Your task to perform on an android device: turn off notifications in google photos Image 0: 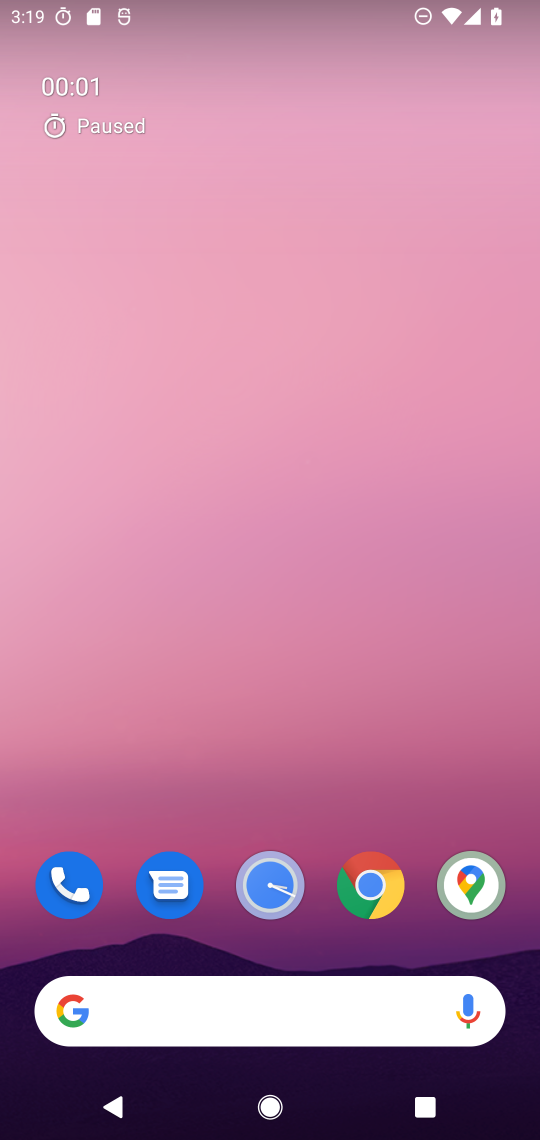
Step 0: drag from (171, 944) to (281, 359)
Your task to perform on an android device: turn off notifications in google photos Image 1: 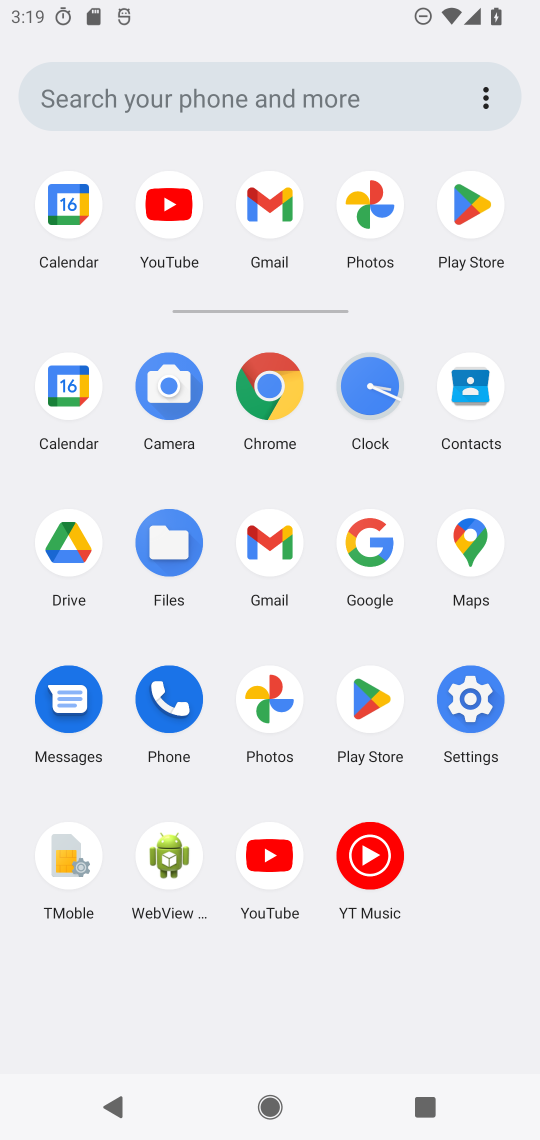
Step 1: click (273, 685)
Your task to perform on an android device: turn off notifications in google photos Image 2: 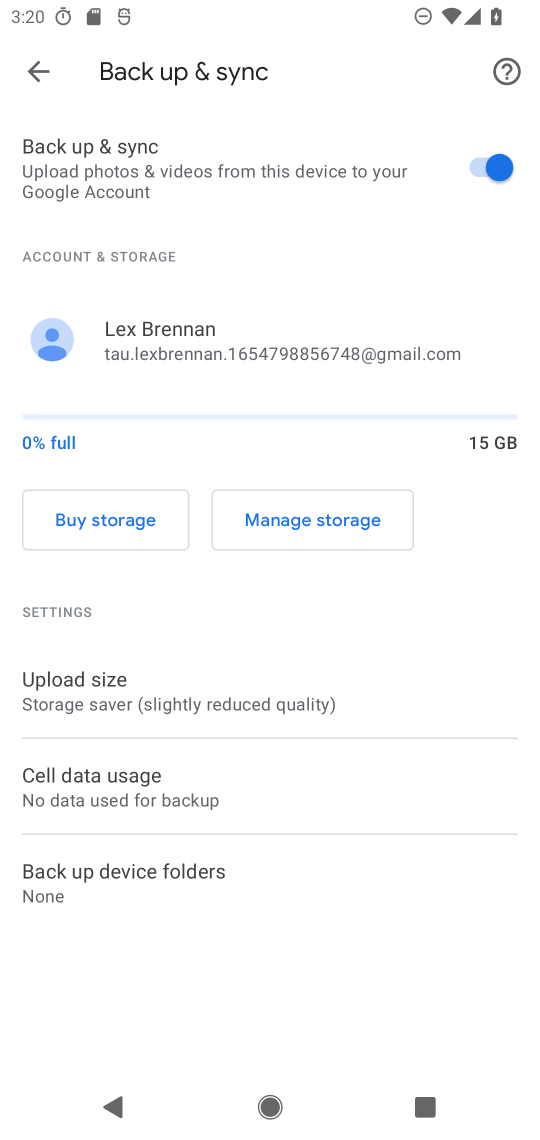
Step 2: click (36, 82)
Your task to perform on an android device: turn off notifications in google photos Image 3: 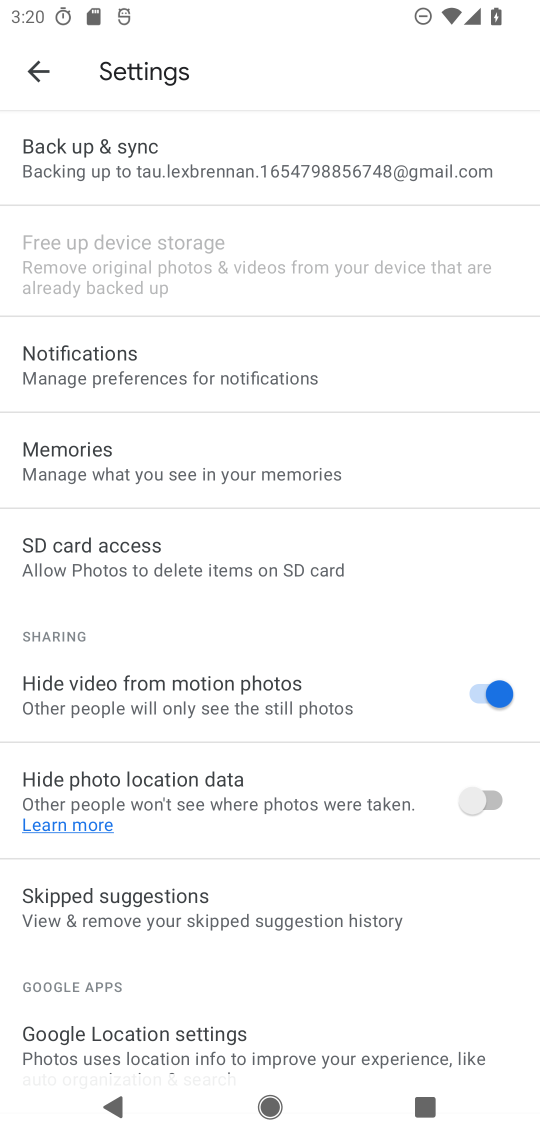
Step 3: click (139, 360)
Your task to perform on an android device: turn off notifications in google photos Image 4: 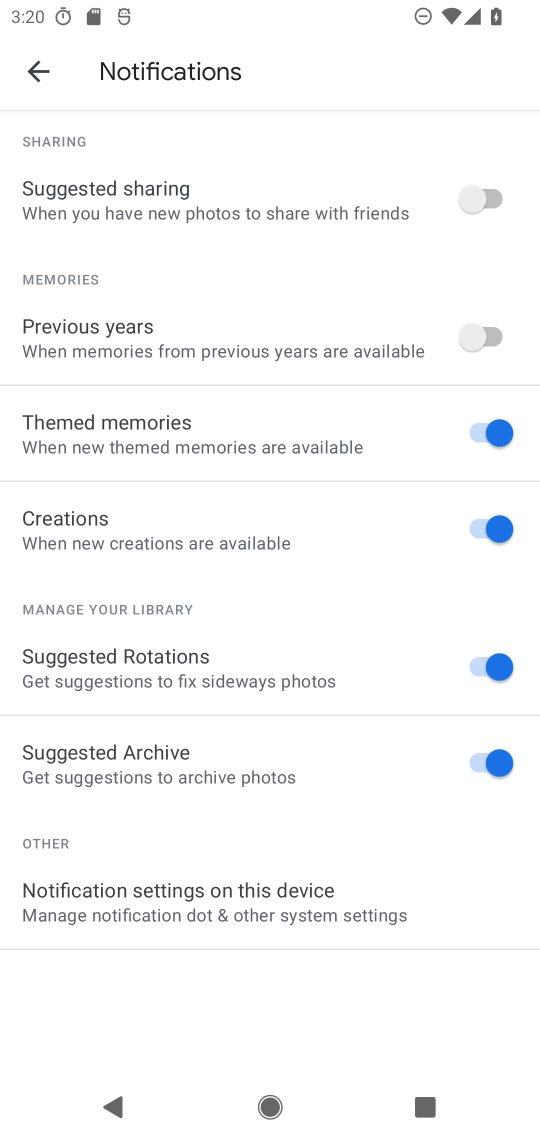
Step 4: click (58, 61)
Your task to perform on an android device: turn off notifications in google photos Image 5: 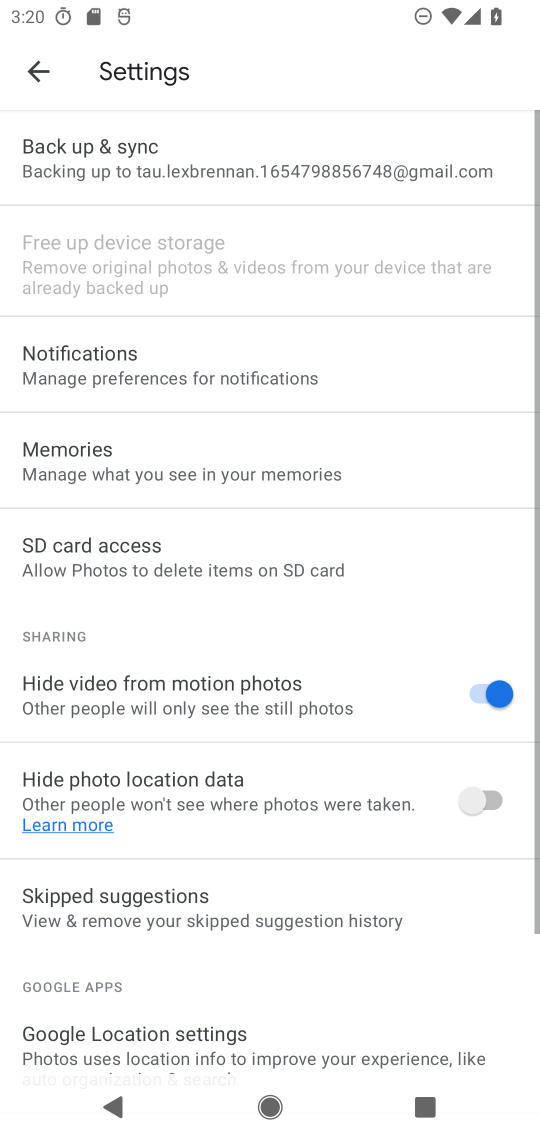
Step 5: drag from (203, 419) to (216, 886)
Your task to perform on an android device: turn off notifications in google photos Image 6: 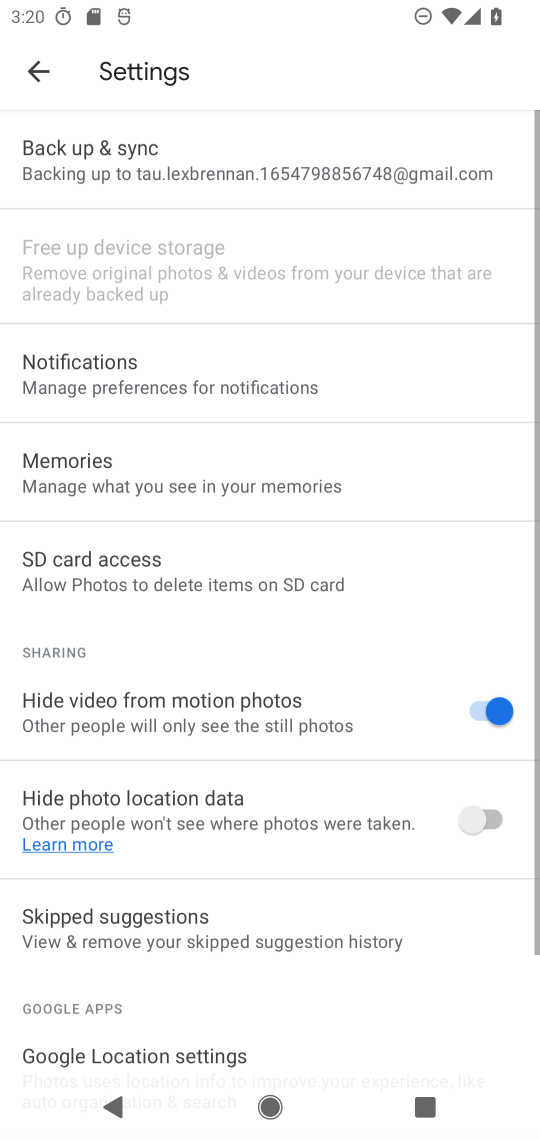
Step 6: click (245, 158)
Your task to perform on an android device: turn off notifications in google photos Image 7: 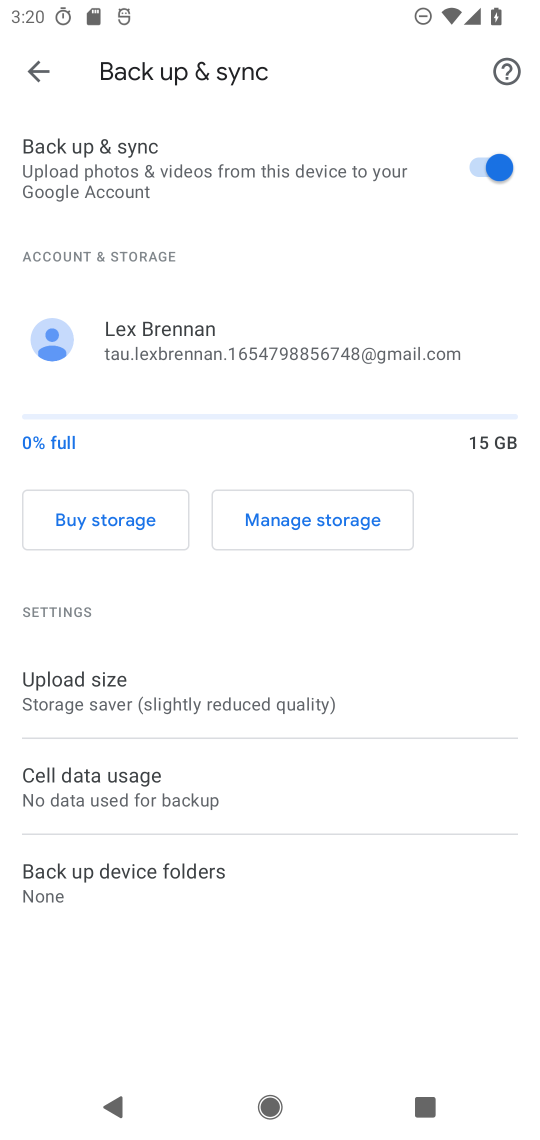
Step 7: drag from (141, 148) to (208, 371)
Your task to perform on an android device: turn off notifications in google photos Image 8: 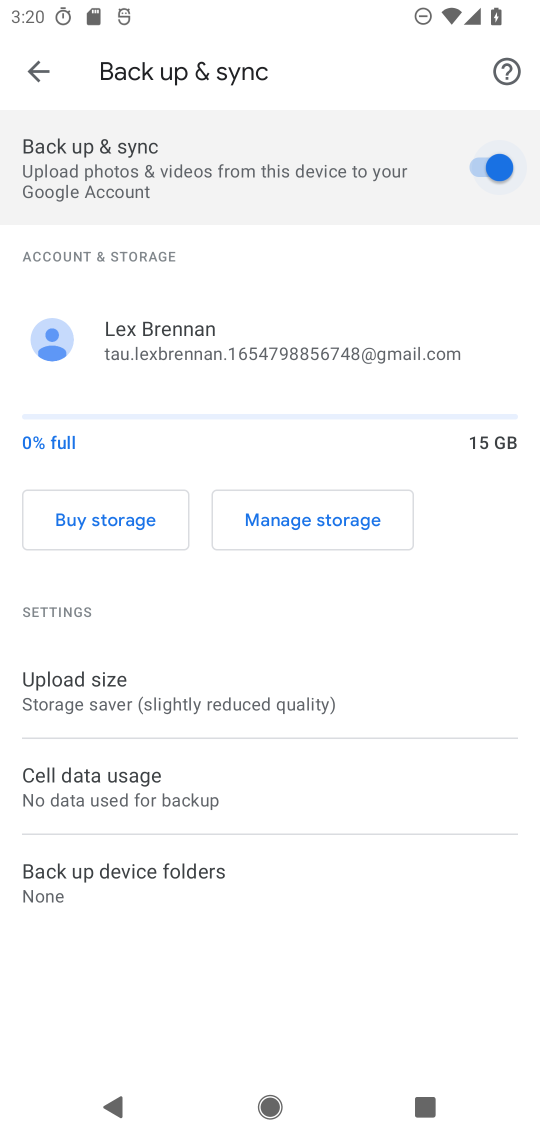
Step 8: click (208, 364)
Your task to perform on an android device: turn off notifications in google photos Image 9: 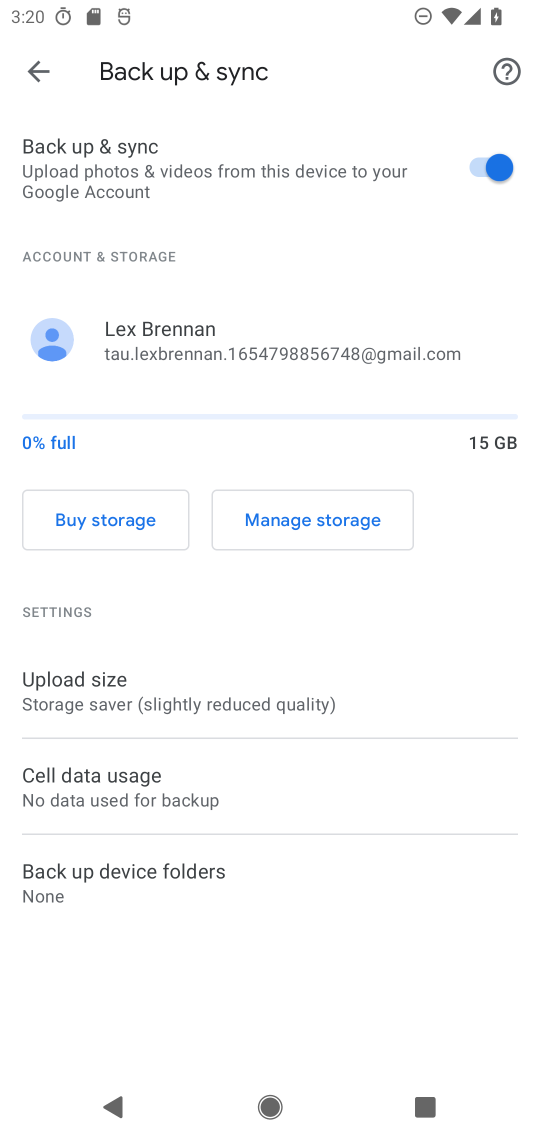
Step 9: click (208, 364)
Your task to perform on an android device: turn off notifications in google photos Image 10: 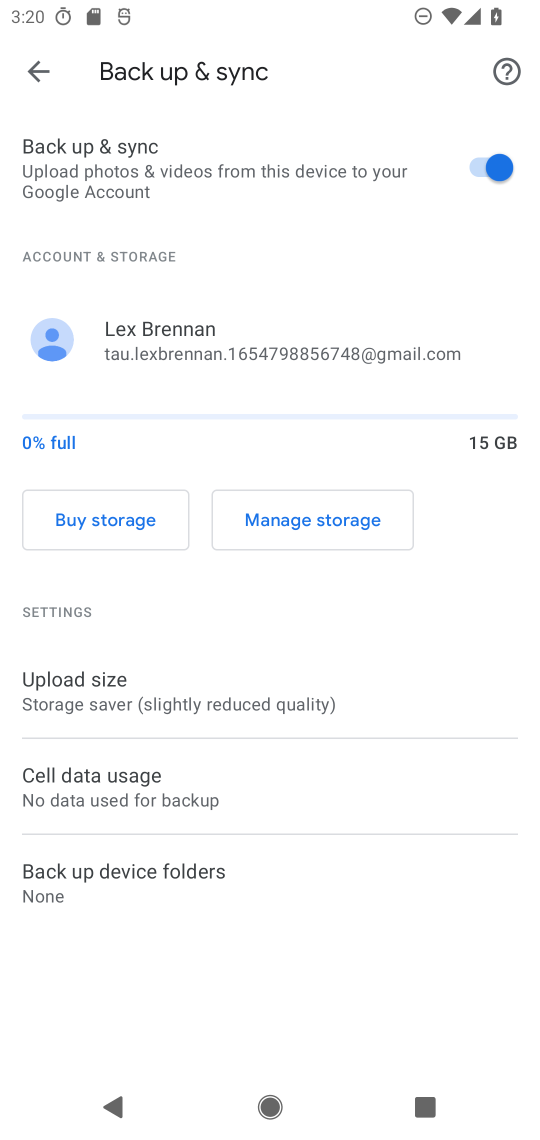
Step 10: click (58, 81)
Your task to perform on an android device: turn off notifications in google photos Image 11: 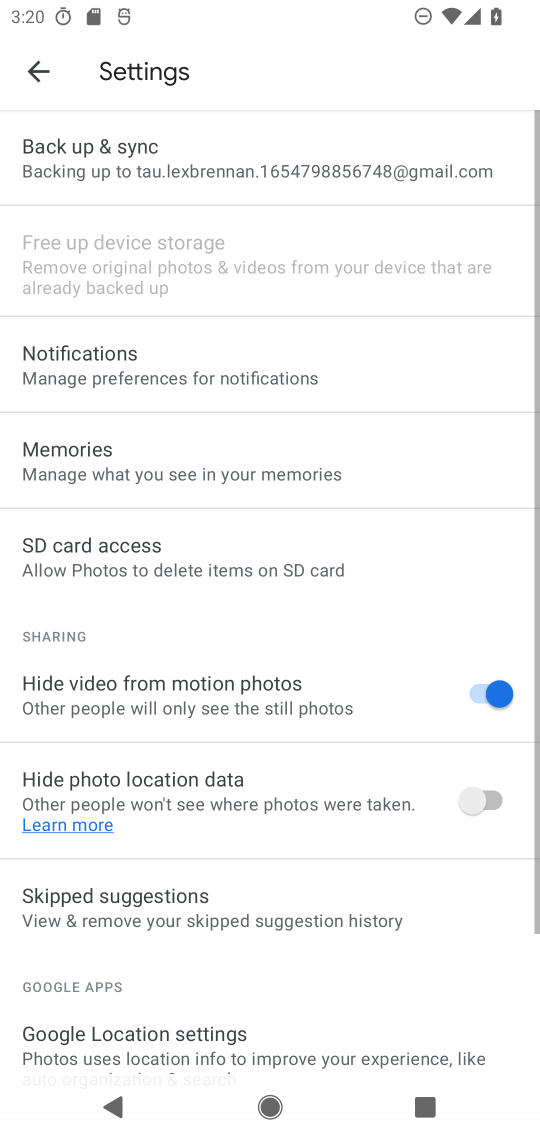
Step 11: click (328, 378)
Your task to perform on an android device: turn off notifications in google photos Image 12: 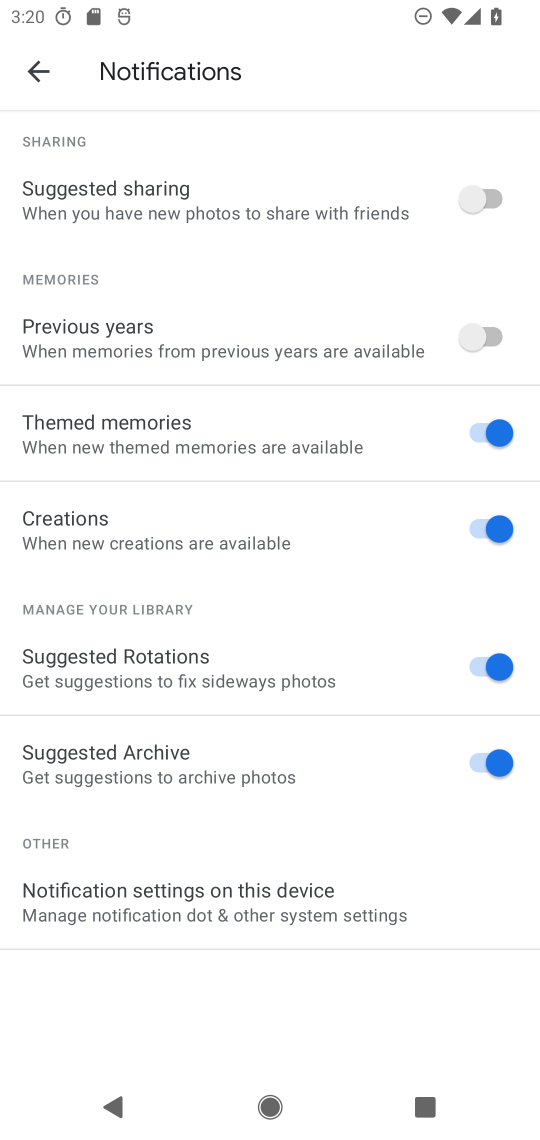
Step 12: click (237, 889)
Your task to perform on an android device: turn off notifications in google photos Image 13: 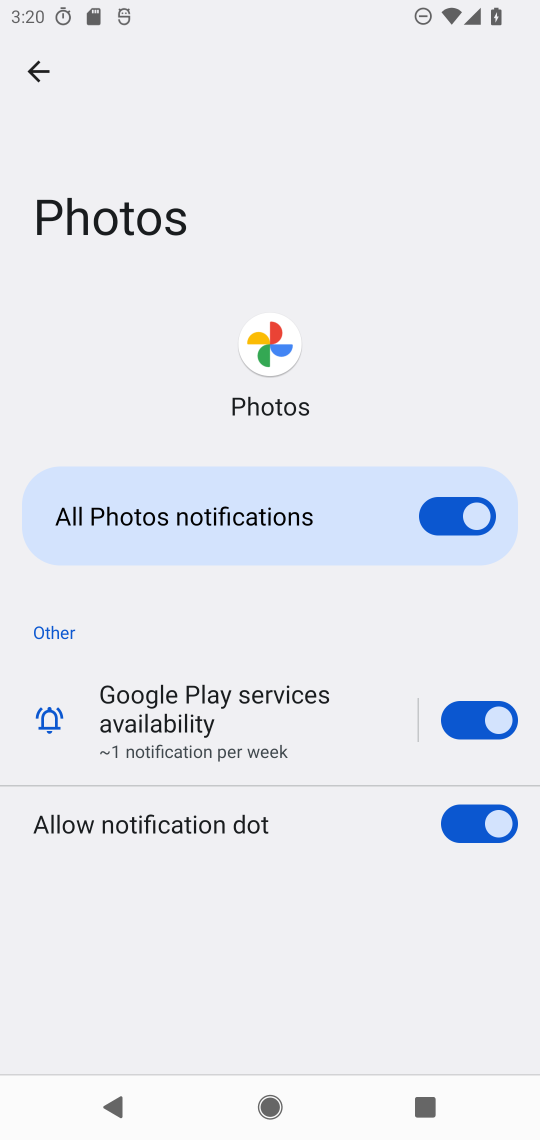
Step 13: click (470, 499)
Your task to perform on an android device: turn off notifications in google photos Image 14: 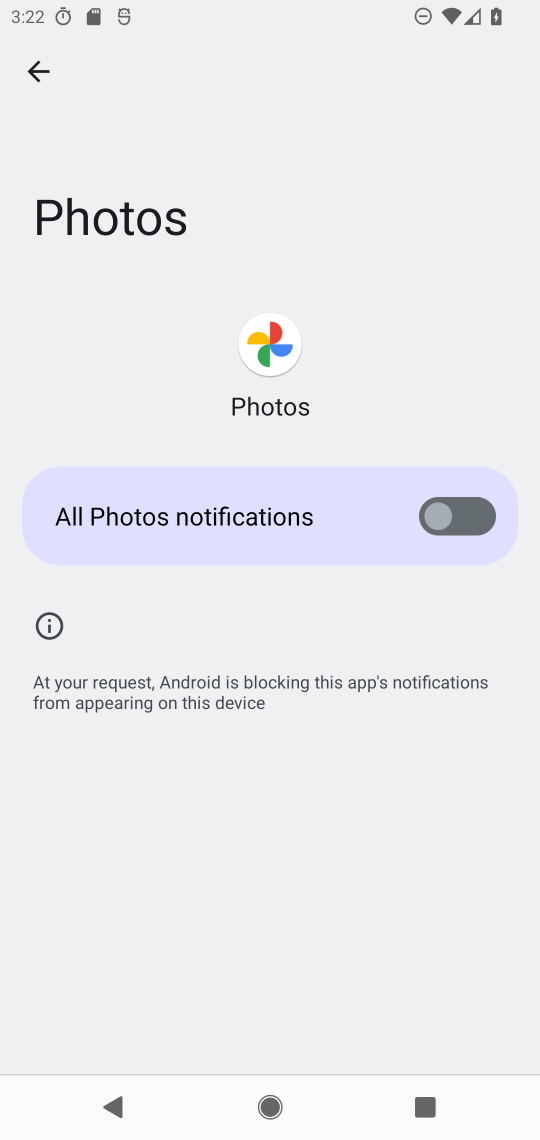
Step 14: task complete